Your task to perform on an android device: change timer sound Image 0: 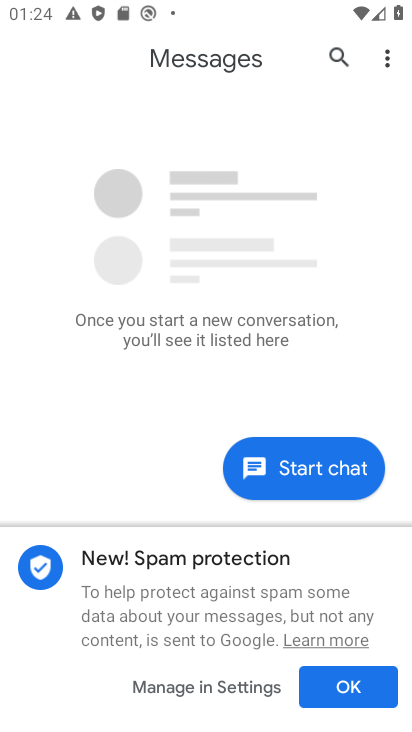
Step 0: press home button
Your task to perform on an android device: change timer sound Image 1: 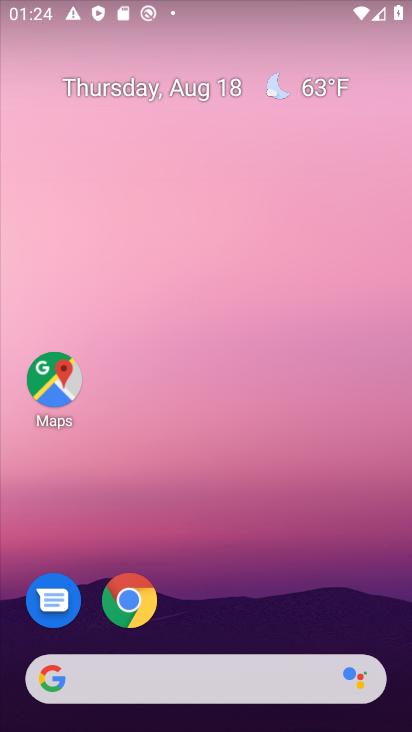
Step 1: drag from (252, 593) to (216, 175)
Your task to perform on an android device: change timer sound Image 2: 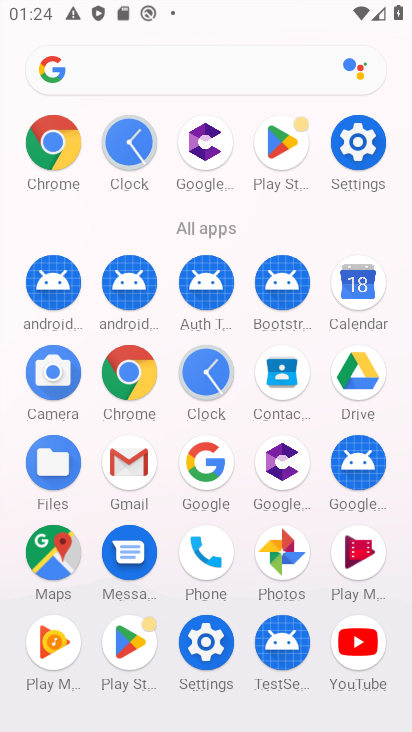
Step 2: click (119, 137)
Your task to perform on an android device: change timer sound Image 3: 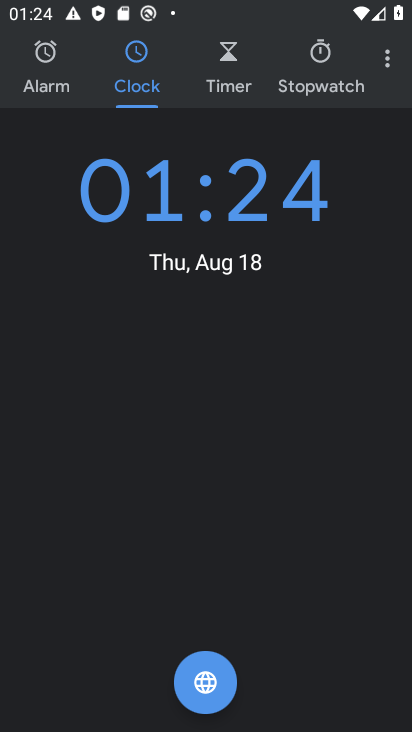
Step 3: click (394, 53)
Your task to perform on an android device: change timer sound Image 4: 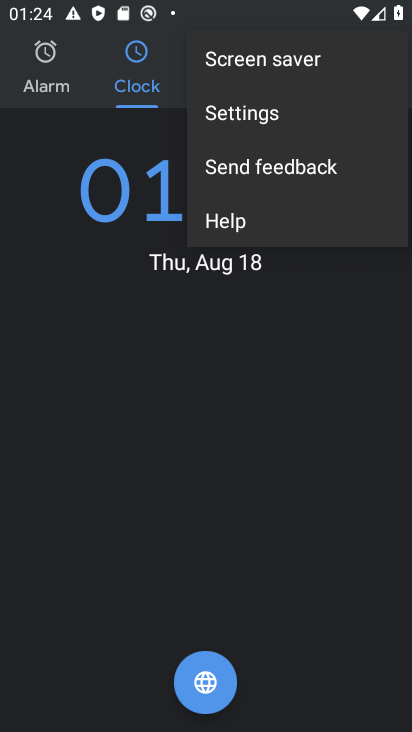
Step 4: click (264, 114)
Your task to perform on an android device: change timer sound Image 5: 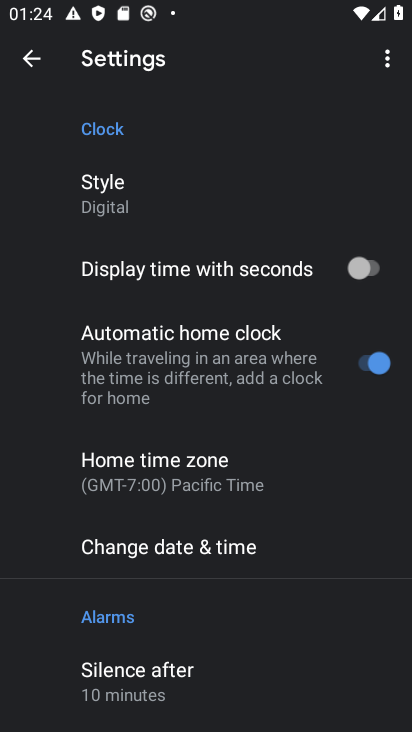
Step 5: drag from (227, 624) to (177, 265)
Your task to perform on an android device: change timer sound Image 6: 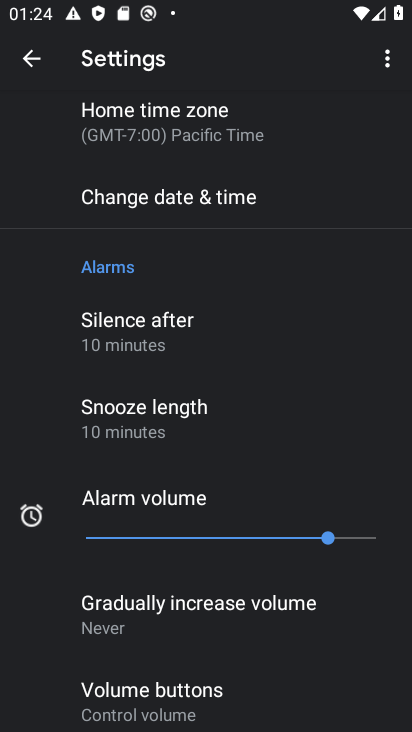
Step 6: drag from (254, 691) to (232, 354)
Your task to perform on an android device: change timer sound Image 7: 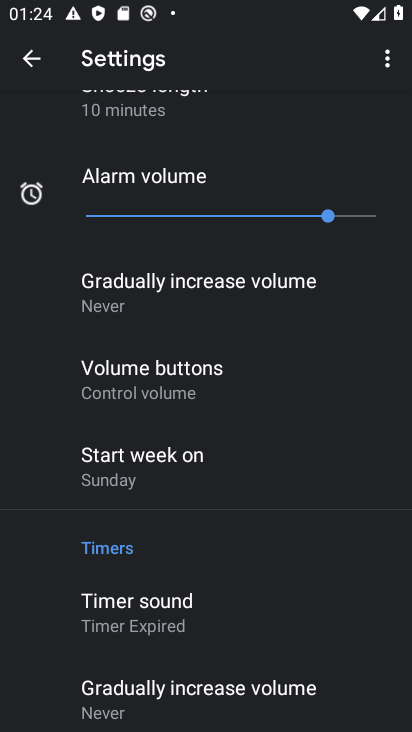
Step 7: click (147, 597)
Your task to perform on an android device: change timer sound Image 8: 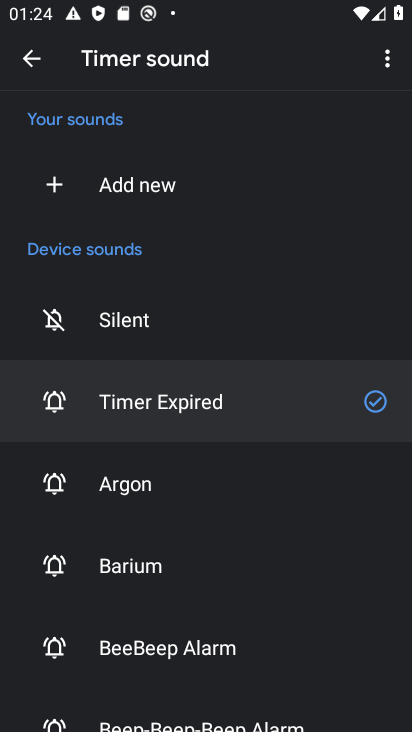
Step 8: click (110, 487)
Your task to perform on an android device: change timer sound Image 9: 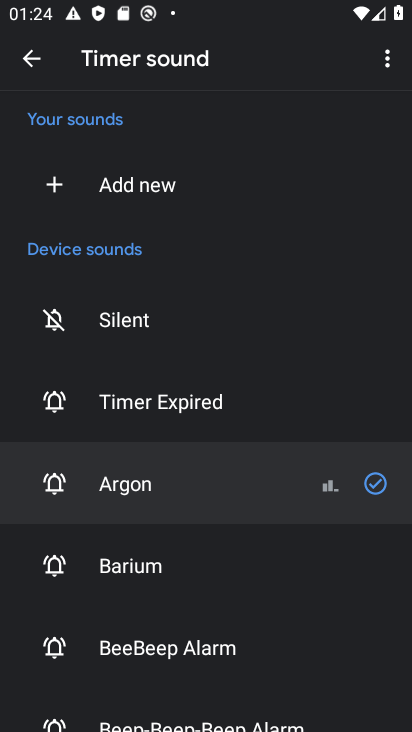
Step 9: task complete